Your task to perform on an android device: open sync settings in chrome Image 0: 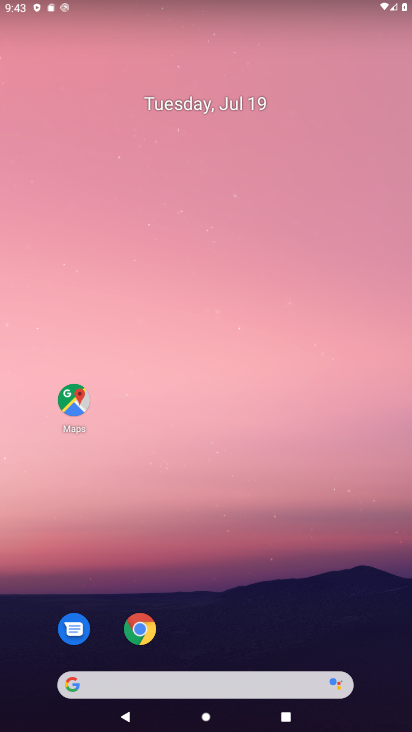
Step 0: click (144, 634)
Your task to perform on an android device: open sync settings in chrome Image 1: 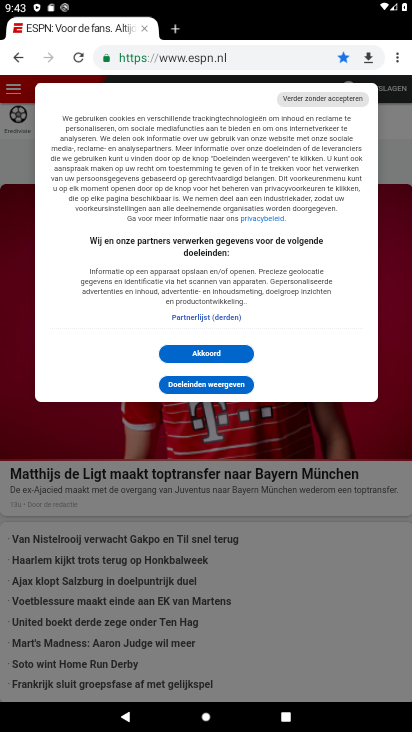
Step 1: click (394, 57)
Your task to perform on an android device: open sync settings in chrome Image 2: 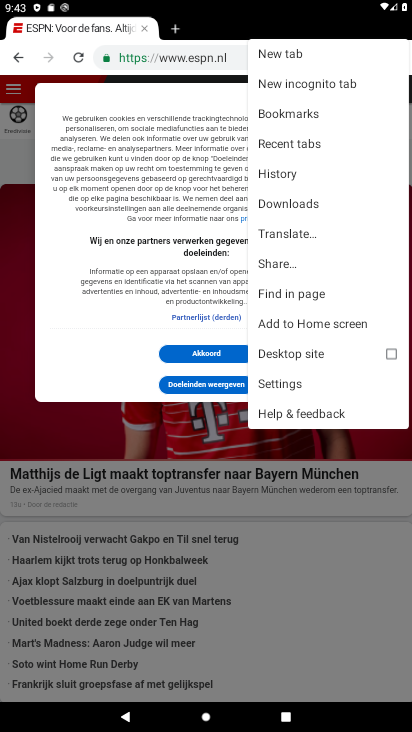
Step 2: click (284, 386)
Your task to perform on an android device: open sync settings in chrome Image 3: 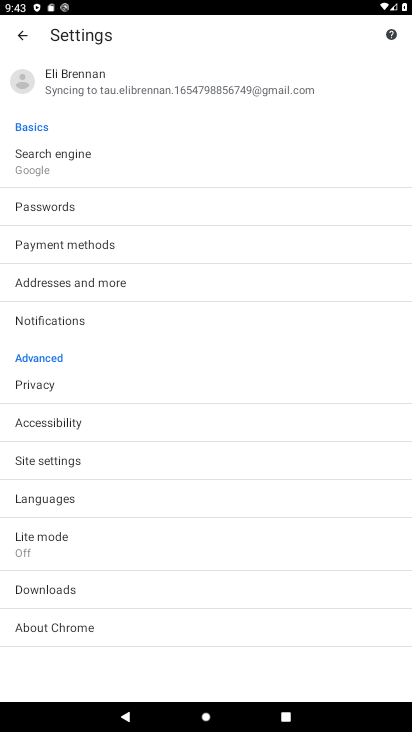
Step 3: click (176, 88)
Your task to perform on an android device: open sync settings in chrome Image 4: 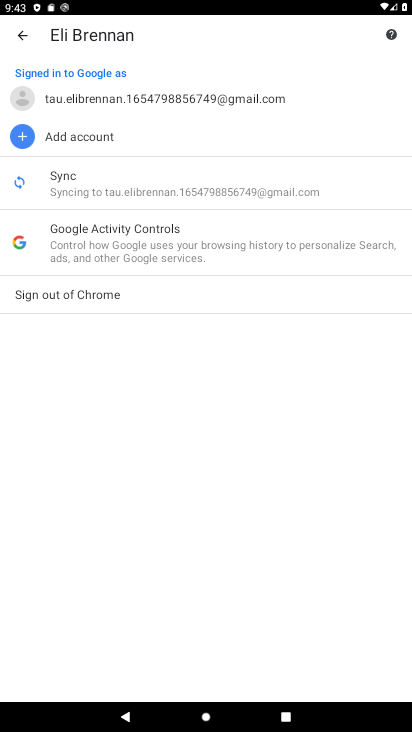
Step 4: click (116, 184)
Your task to perform on an android device: open sync settings in chrome Image 5: 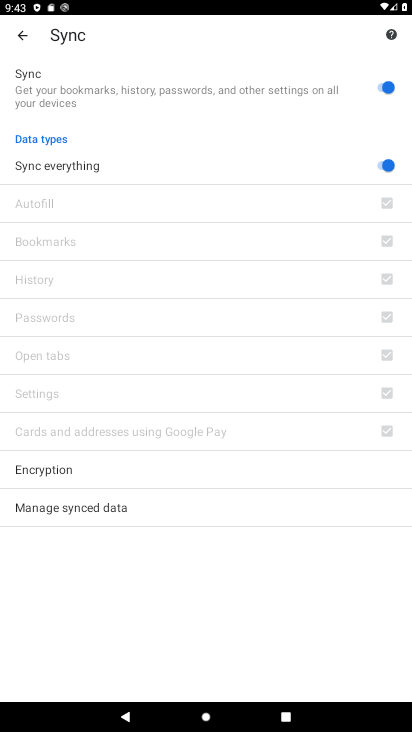
Step 5: task complete